Your task to perform on an android device: Open Google Chrome and open the bookmarks view Image 0: 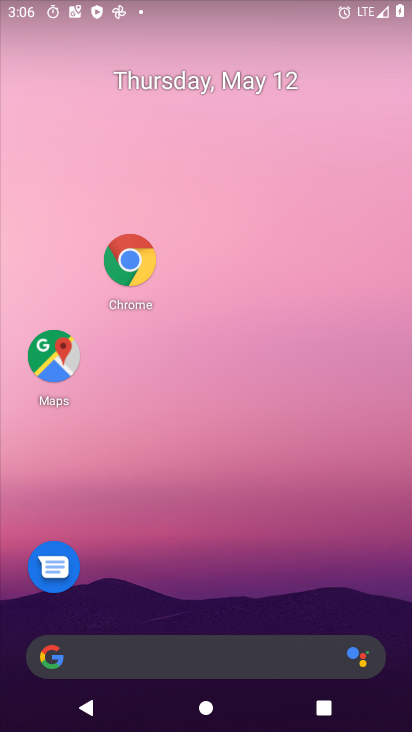
Step 0: drag from (206, 647) to (249, 219)
Your task to perform on an android device: Open Google Chrome and open the bookmarks view Image 1: 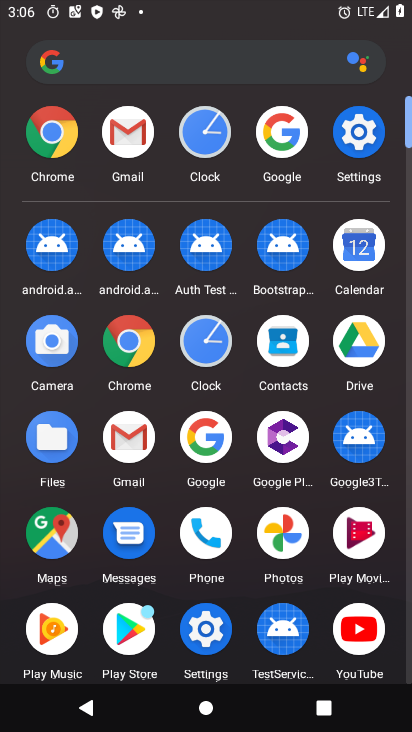
Step 1: click (129, 335)
Your task to perform on an android device: Open Google Chrome and open the bookmarks view Image 2: 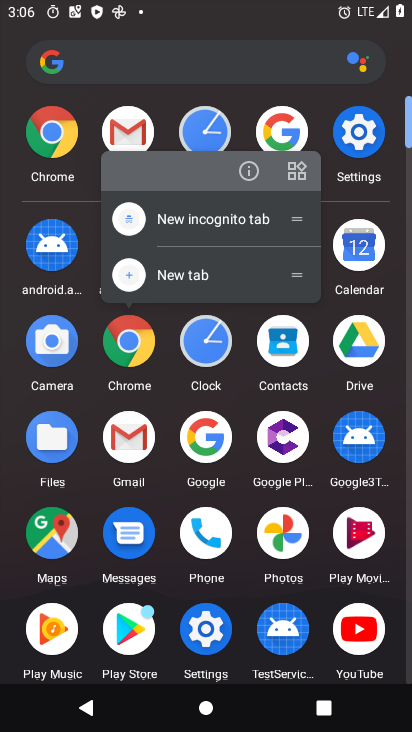
Step 2: click (131, 344)
Your task to perform on an android device: Open Google Chrome and open the bookmarks view Image 3: 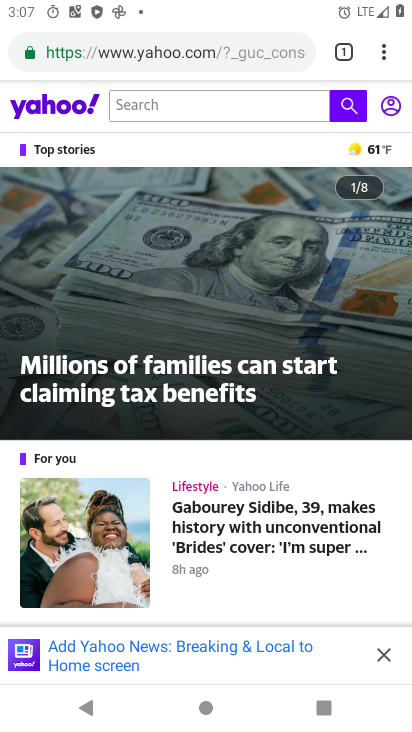
Step 3: press home button
Your task to perform on an android device: Open Google Chrome and open the bookmarks view Image 4: 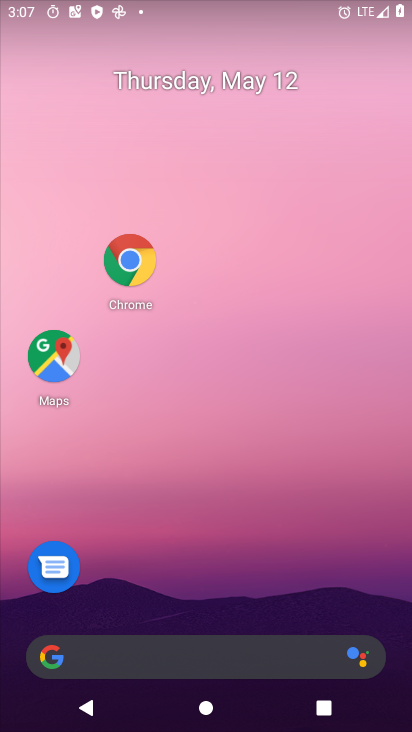
Step 4: click (125, 264)
Your task to perform on an android device: Open Google Chrome and open the bookmarks view Image 5: 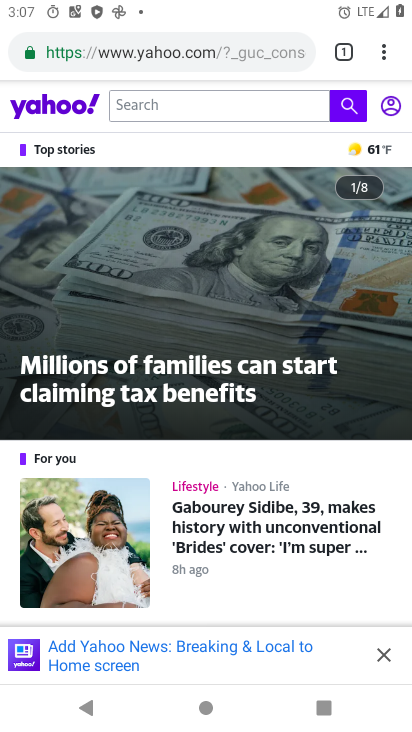
Step 5: click (384, 58)
Your task to perform on an android device: Open Google Chrome and open the bookmarks view Image 6: 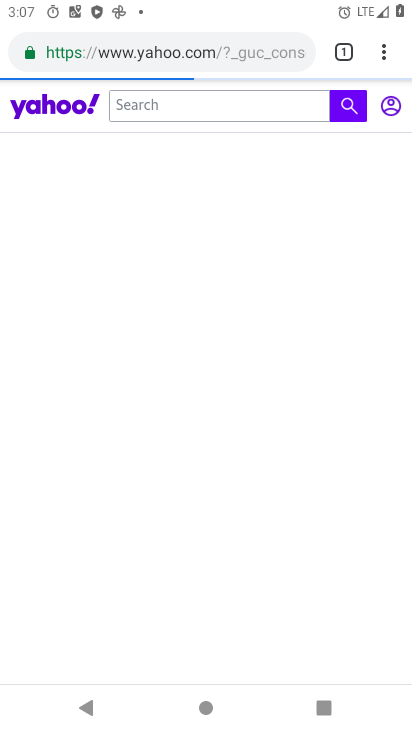
Step 6: click (379, 59)
Your task to perform on an android device: Open Google Chrome and open the bookmarks view Image 7: 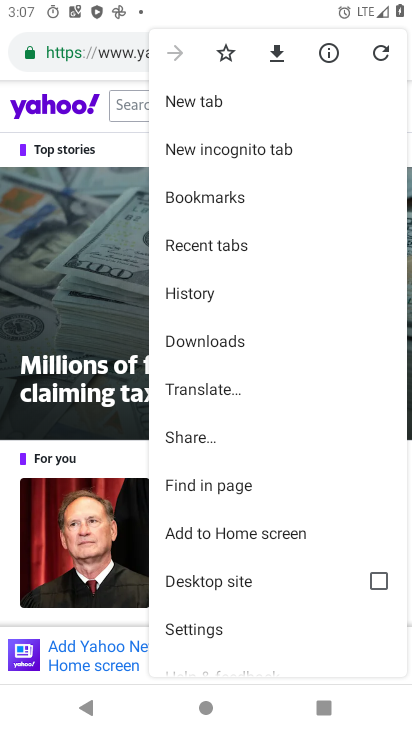
Step 7: click (202, 190)
Your task to perform on an android device: Open Google Chrome and open the bookmarks view Image 8: 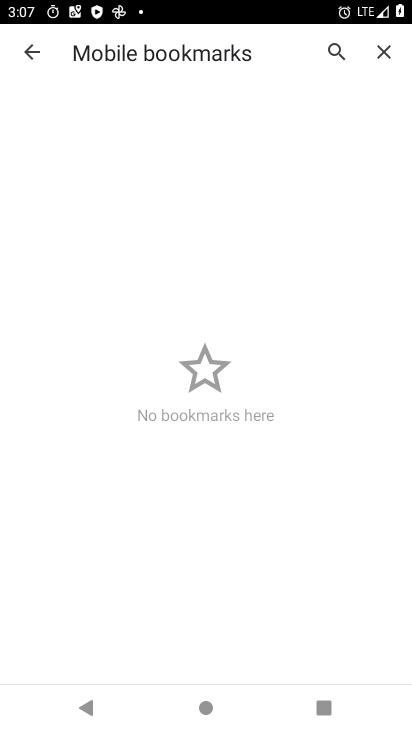
Step 8: task complete